Your task to perform on an android device: turn notification dots on Image 0: 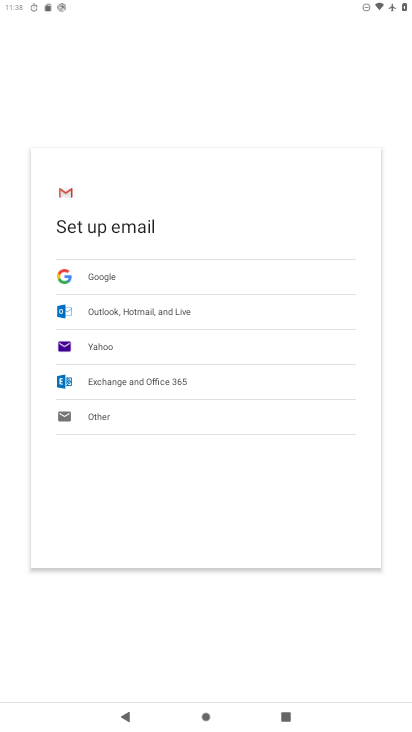
Step 0: press home button
Your task to perform on an android device: turn notification dots on Image 1: 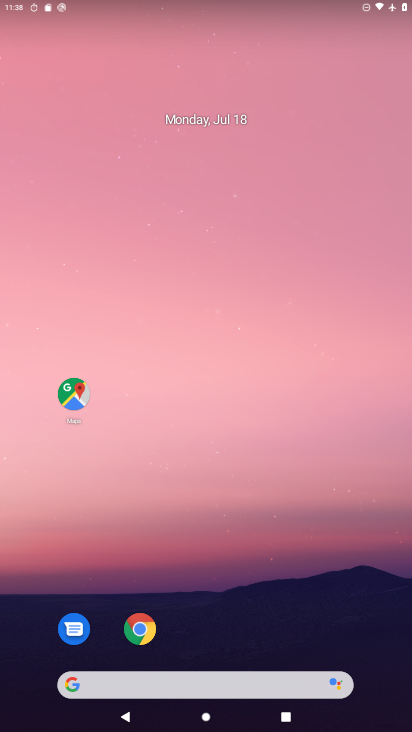
Step 1: drag from (279, 548) to (229, 64)
Your task to perform on an android device: turn notification dots on Image 2: 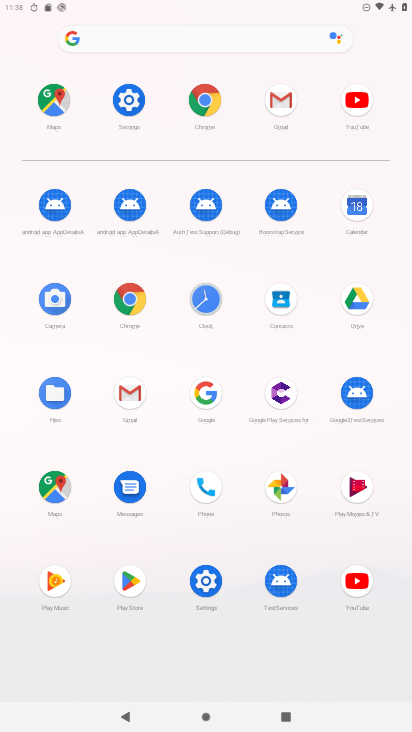
Step 2: click (115, 93)
Your task to perform on an android device: turn notification dots on Image 3: 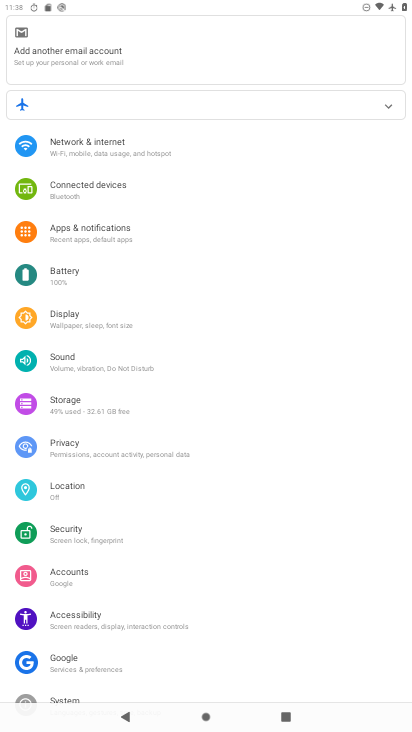
Step 3: click (117, 234)
Your task to perform on an android device: turn notification dots on Image 4: 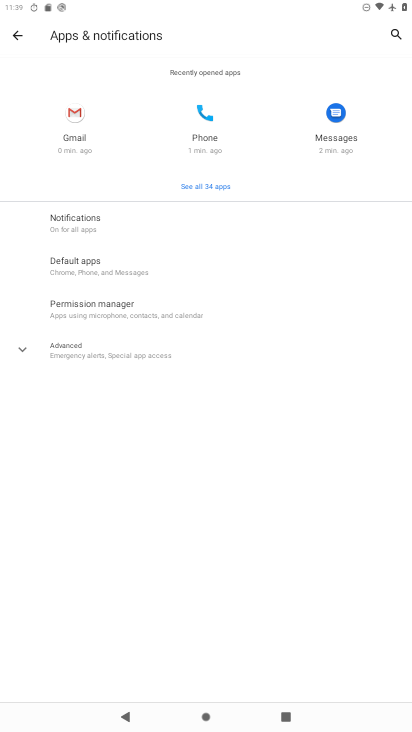
Step 4: click (91, 225)
Your task to perform on an android device: turn notification dots on Image 5: 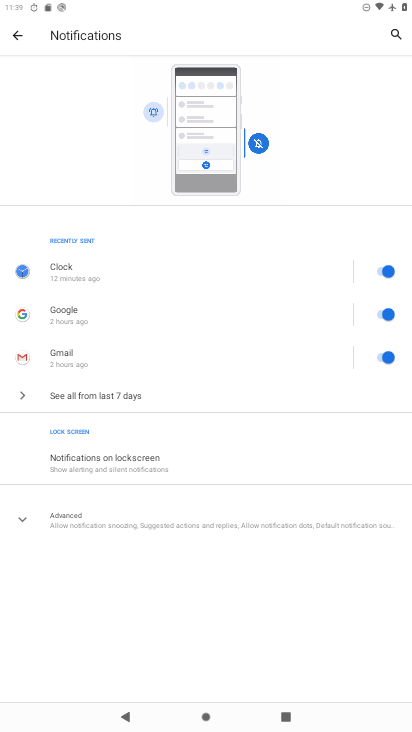
Step 5: click (209, 508)
Your task to perform on an android device: turn notification dots on Image 6: 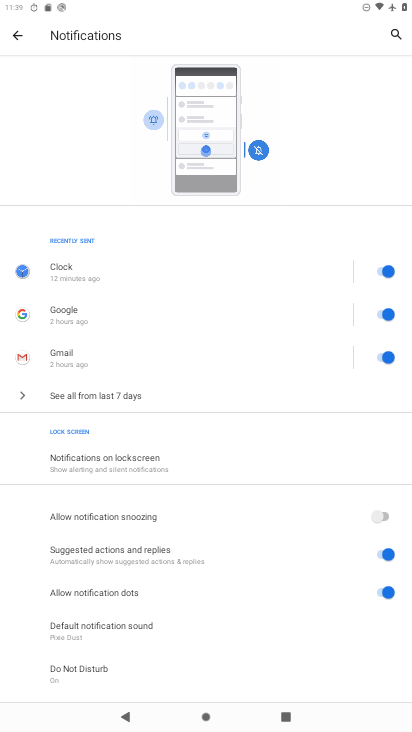
Step 6: task complete